Your task to perform on an android device: turn off picture-in-picture Image 0: 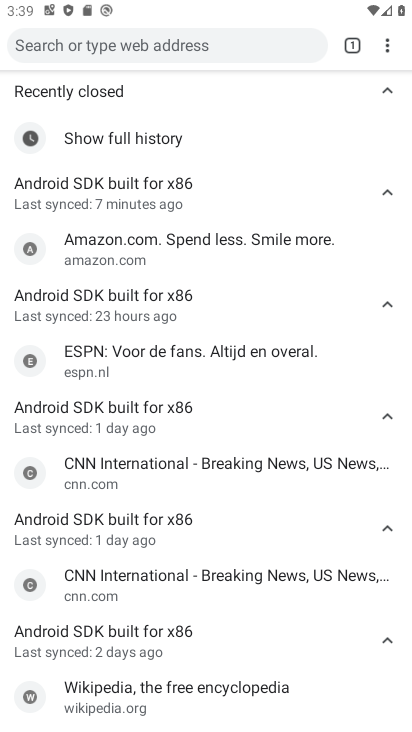
Step 0: press home button
Your task to perform on an android device: turn off picture-in-picture Image 1: 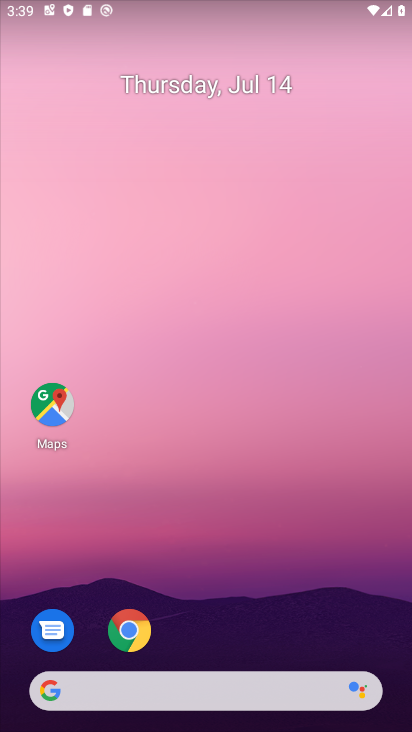
Step 1: drag from (200, 701) to (191, 138)
Your task to perform on an android device: turn off picture-in-picture Image 2: 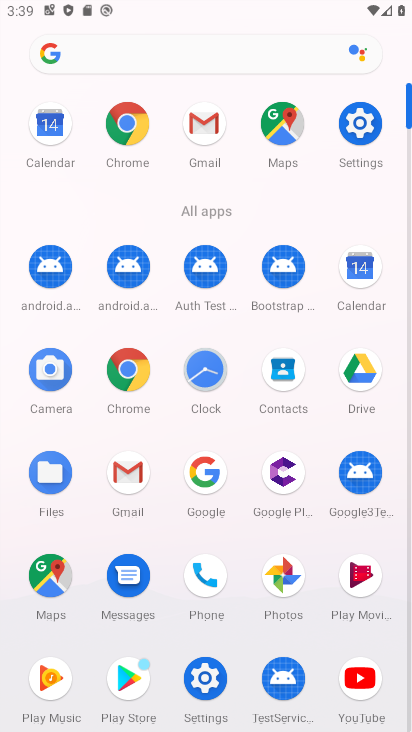
Step 2: click (366, 123)
Your task to perform on an android device: turn off picture-in-picture Image 3: 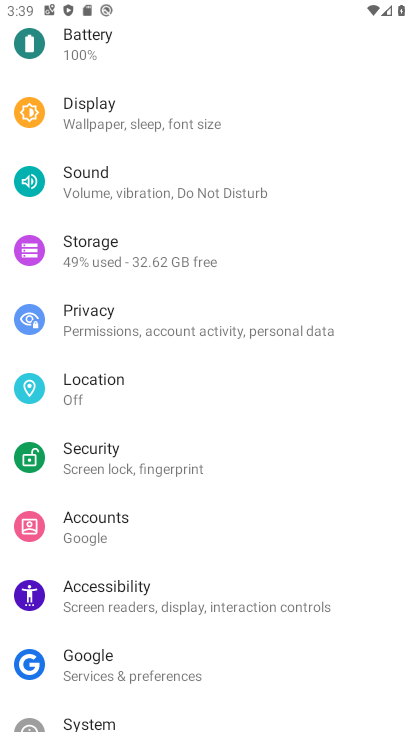
Step 3: drag from (262, 101) to (250, 530)
Your task to perform on an android device: turn off picture-in-picture Image 4: 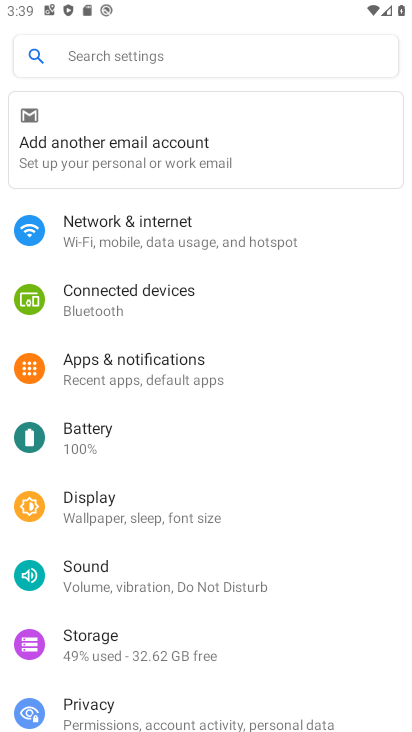
Step 4: click (114, 371)
Your task to perform on an android device: turn off picture-in-picture Image 5: 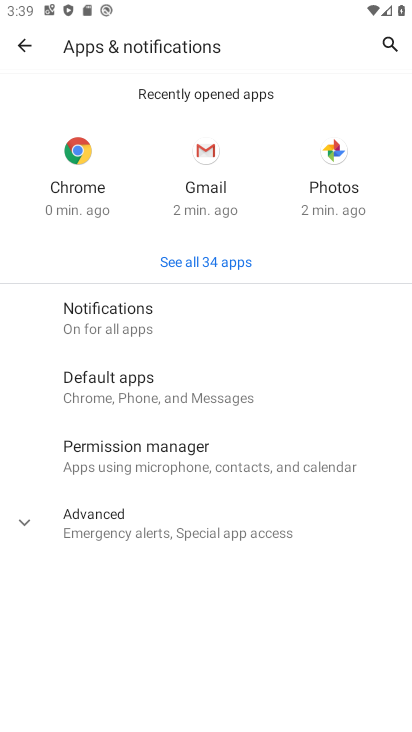
Step 5: click (82, 533)
Your task to perform on an android device: turn off picture-in-picture Image 6: 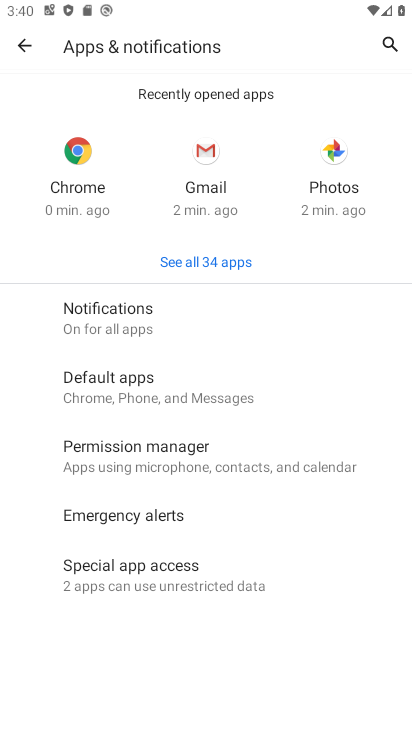
Step 6: click (93, 570)
Your task to perform on an android device: turn off picture-in-picture Image 7: 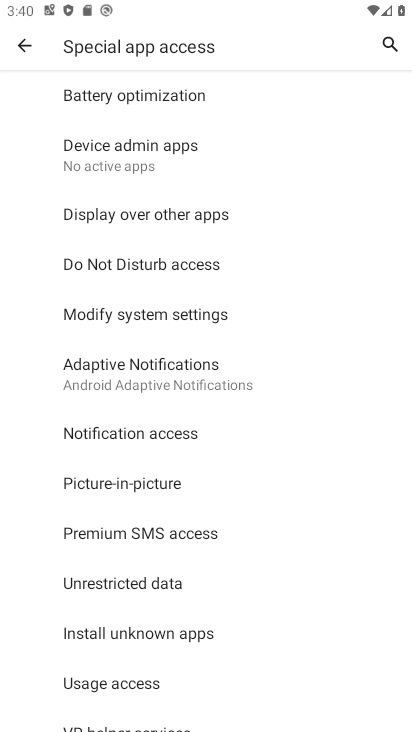
Step 7: click (102, 479)
Your task to perform on an android device: turn off picture-in-picture Image 8: 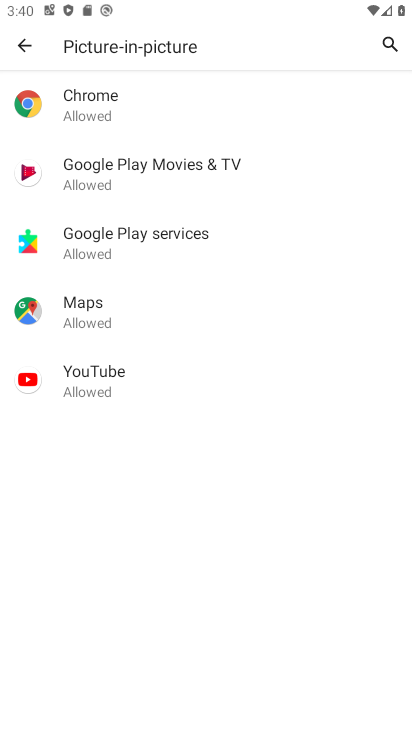
Step 8: click (84, 384)
Your task to perform on an android device: turn off picture-in-picture Image 9: 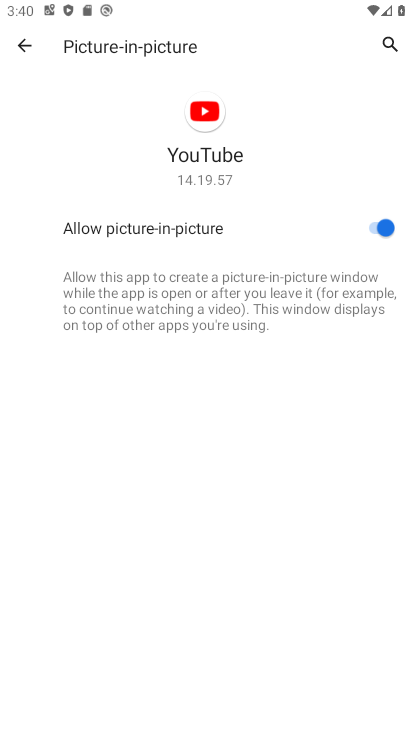
Step 9: click (375, 225)
Your task to perform on an android device: turn off picture-in-picture Image 10: 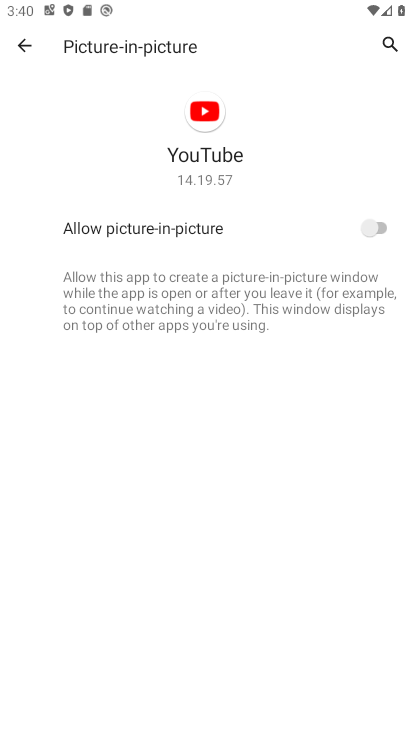
Step 10: task complete